Your task to perform on an android device: Search for "macbook air" on newegg.com, select the first entry, add it to the cart, then select checkout. Image 0: 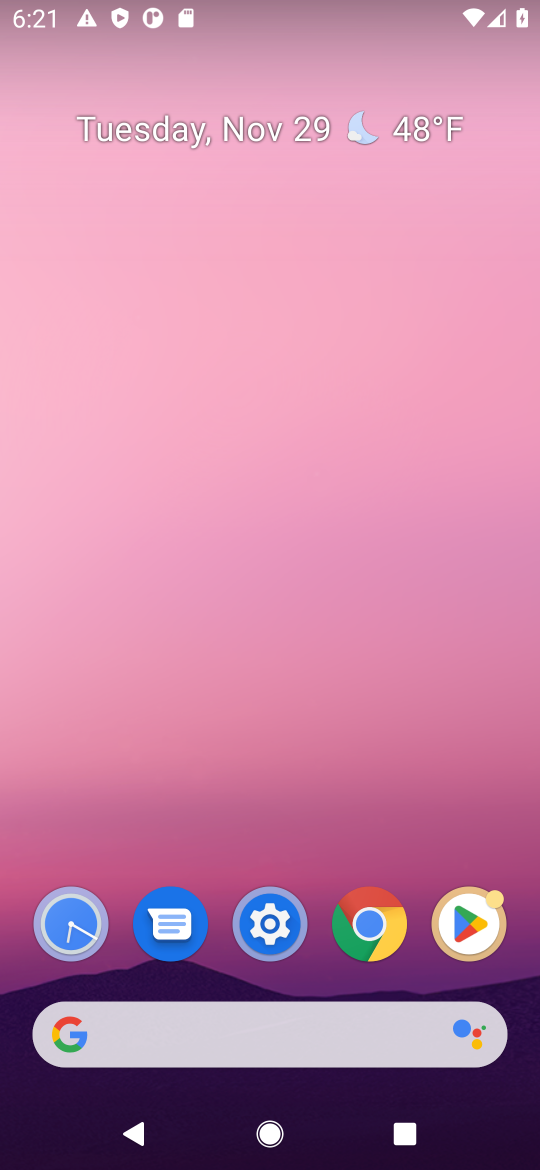
Step 0: click (200, 1050)
Your task to perform on an android device: Search for "macbook air" on newegg.com, select the first entry, add it to the cart, then select checkout. Image 1: 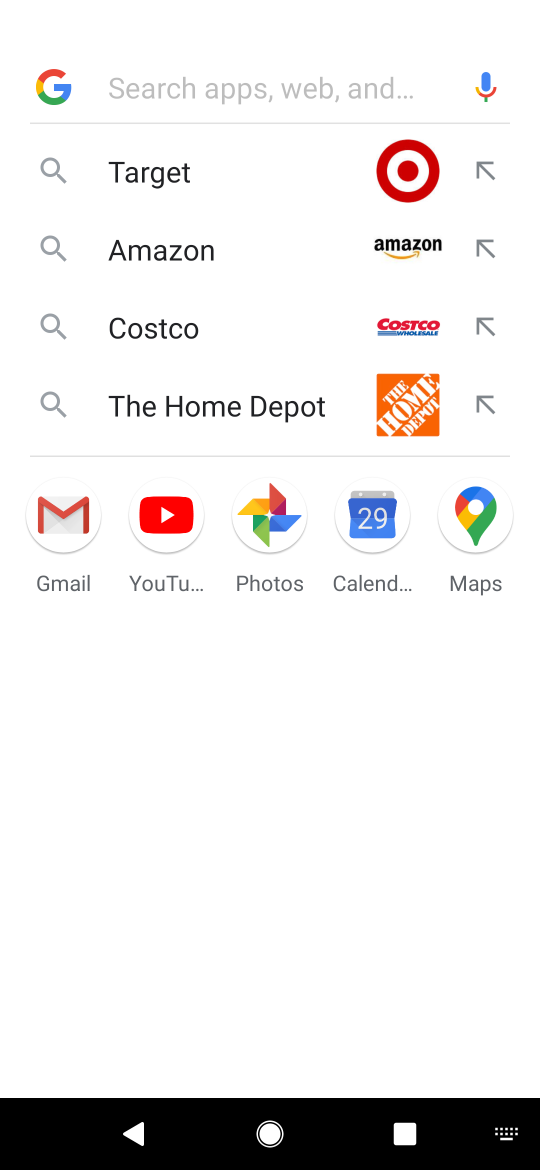
Step 1: type "newegg"
Your task to perform on an android device: Search for "macbook air" on newegg.com, select the first entry, add it to the cart, then select checkout. Image 2: 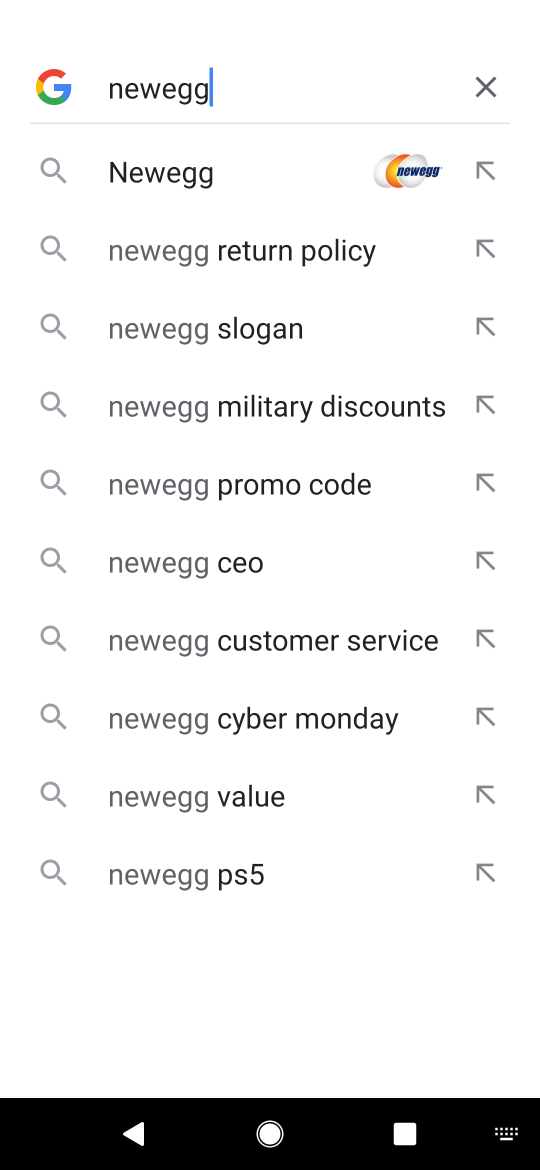
Step 2: click (124, 176)
Your task to perform on an android device: Search for "macbook air" on newegg.com, select the first entry, add it to the cart, then select checkout. Image 3: 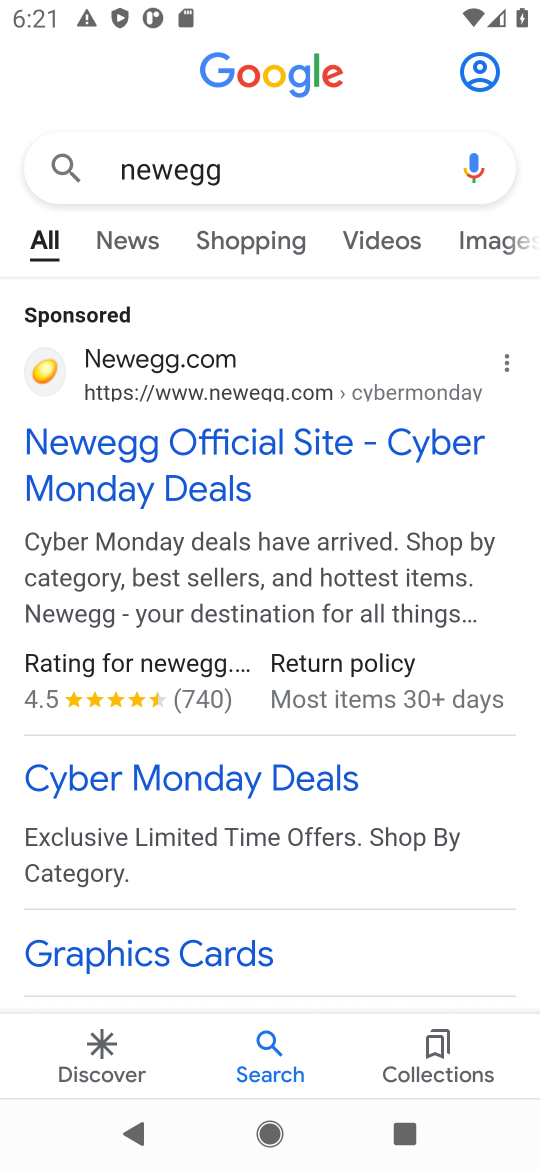
Step 3: click (207, 465)
Your task to perform on an android device: Search for "macbook air" on newegg.com, select the first entry, add it to the cart, then select checkout. Image 4: 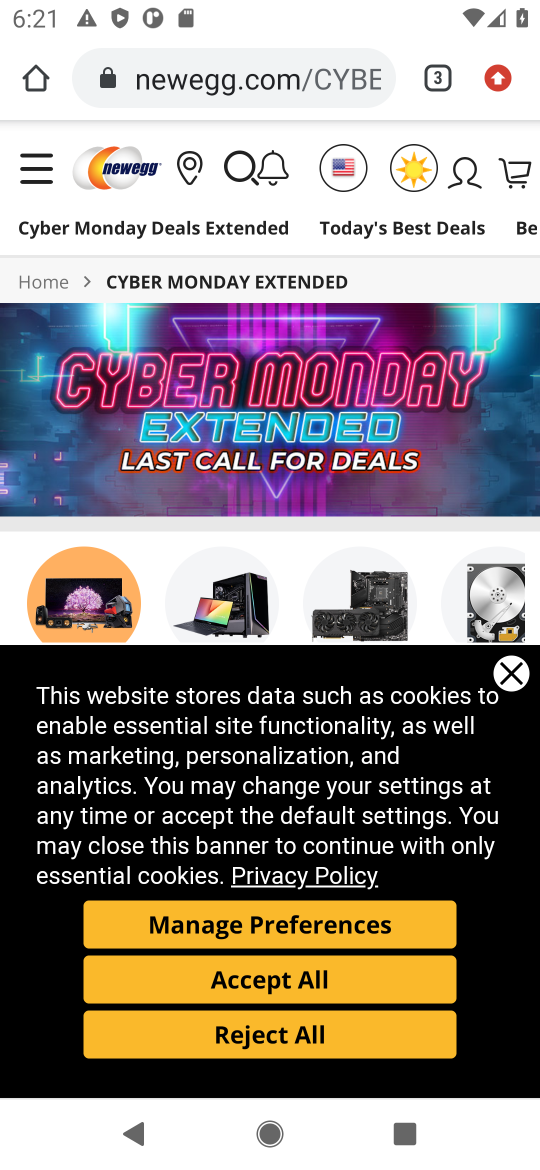
Step 4: click (513, 683)
Your task to perform on an android device: Search for "macbook air" on newegg.com, select the first entry, add it to the cart, then select checkout. Image 5: 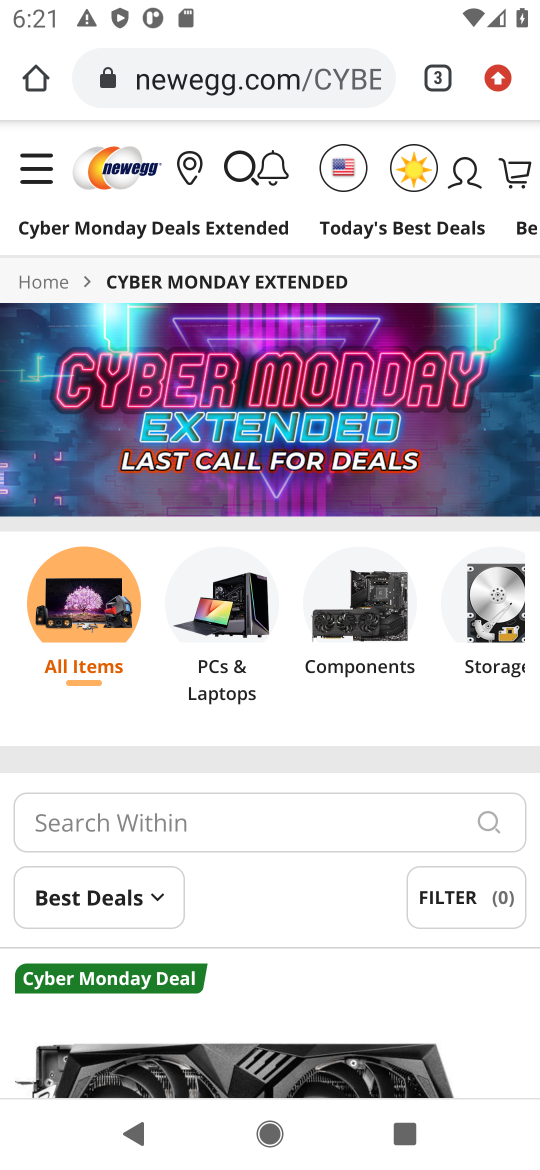
Step 5: click (225, 180)
Your task to perform on an android device: Search for "macbook air" on newegg.com, select the first entry, add it to the cart, then select checkout. Image 6: 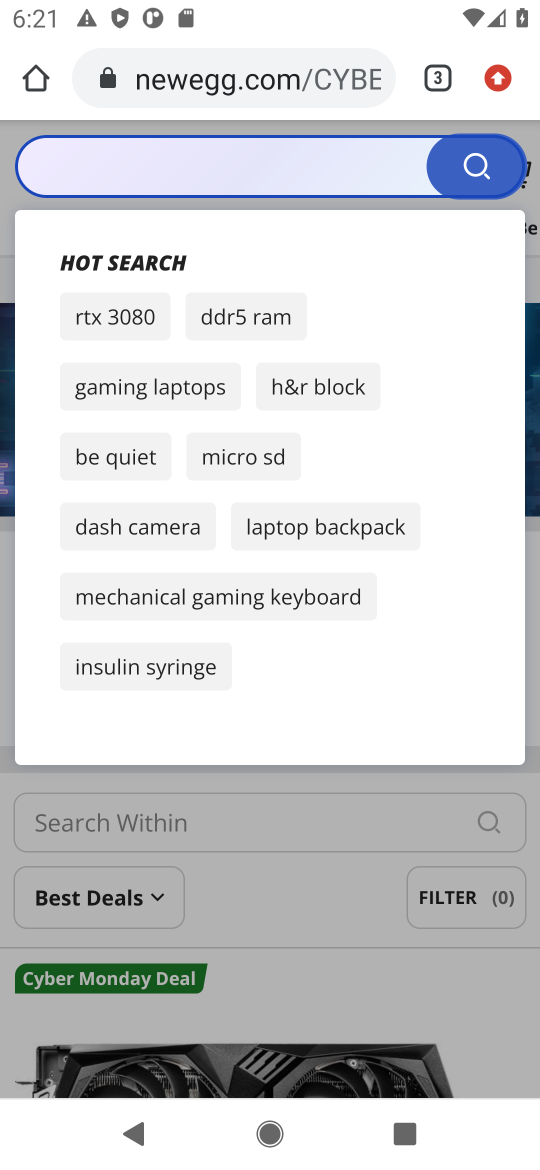
Step 6: click (186, 170)
Your task to perform on an android device: Search for "macbook air" on newegg.com, select the first entry, add it to the cart, then select checkout. Image 7: 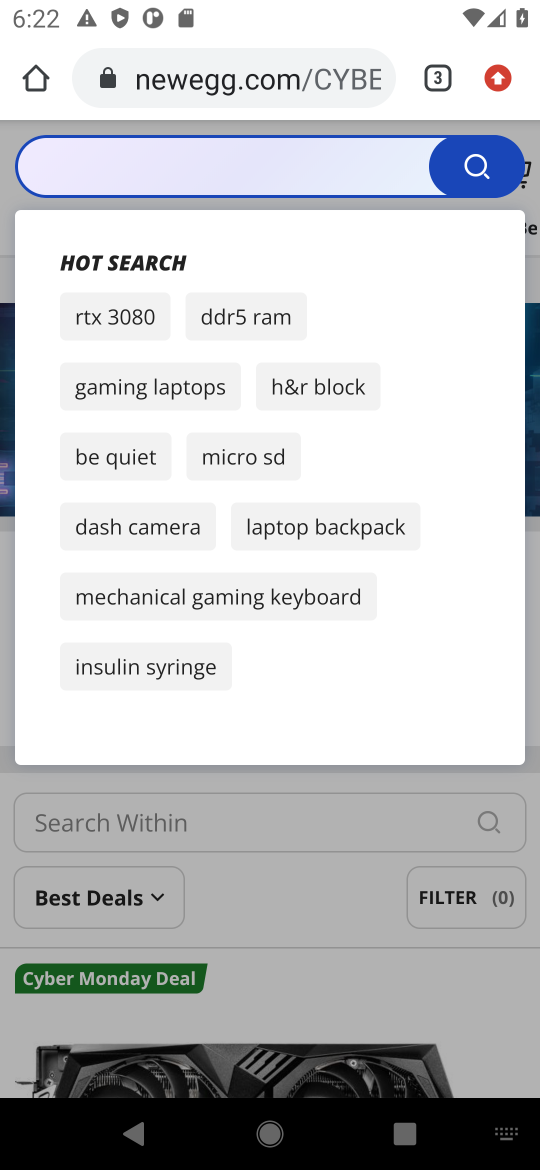
Step 7: type "macbook"
Your task to perform on an android device: Search for "macbook air" on newegg.com, select the first entry, add it to the cart, then select checkout. Image 8: 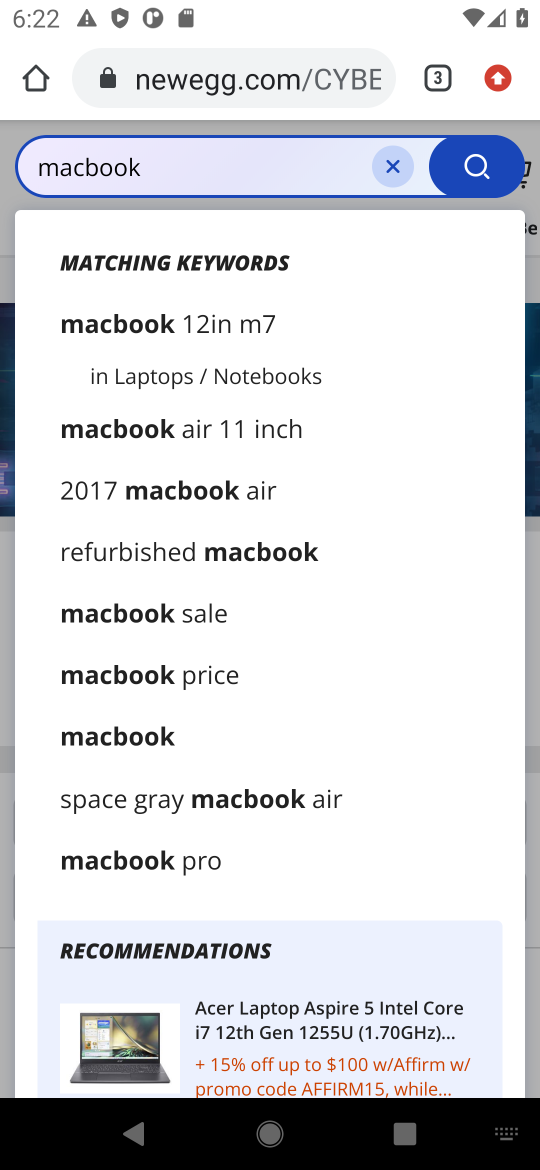
Step 8: click (245, 433)
Your task to perform on an android device: Search for "macbook air" on newegg.com, select the first entry, add it to the cart, then select checkout. Image 9: 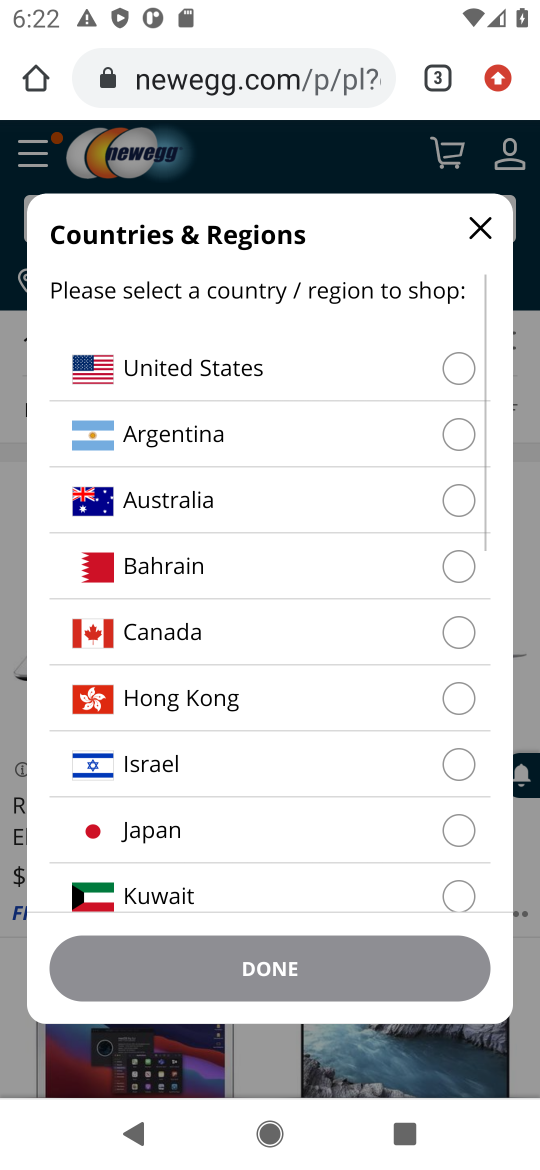
Step 9: click (363, 365)
Your task to perform on an android device: Search for "macbook air" on newegg.com, select the first entry, add it to the cart, then select checkout. Image 10: 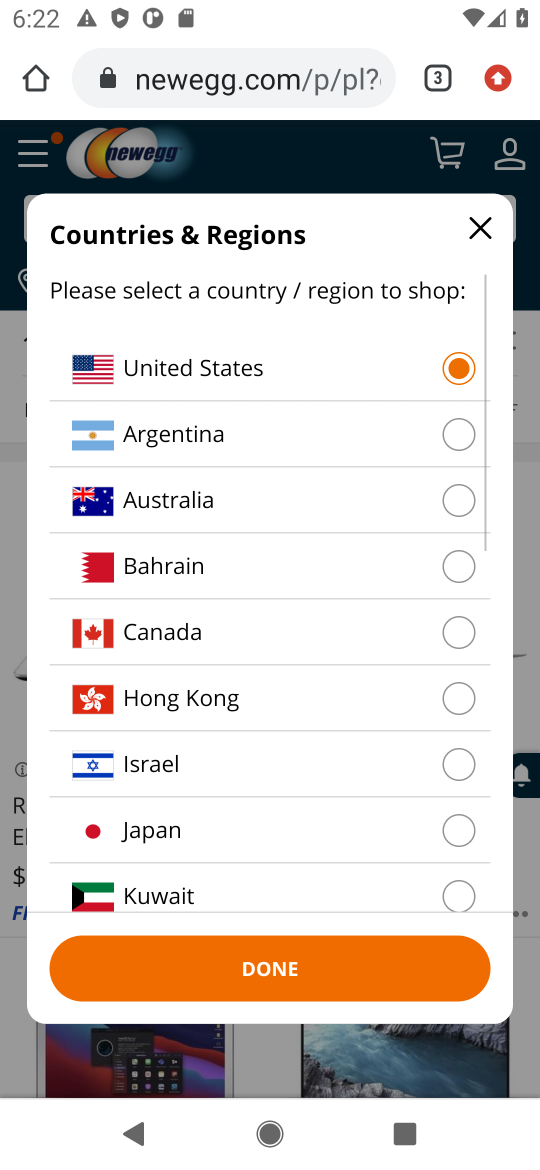
Step 10: click (308, 968)
Your task to perform on an android device: Search for "macbook air" on newegg.com, select the first entry, add it to the cart, then select checkout. Image 11: 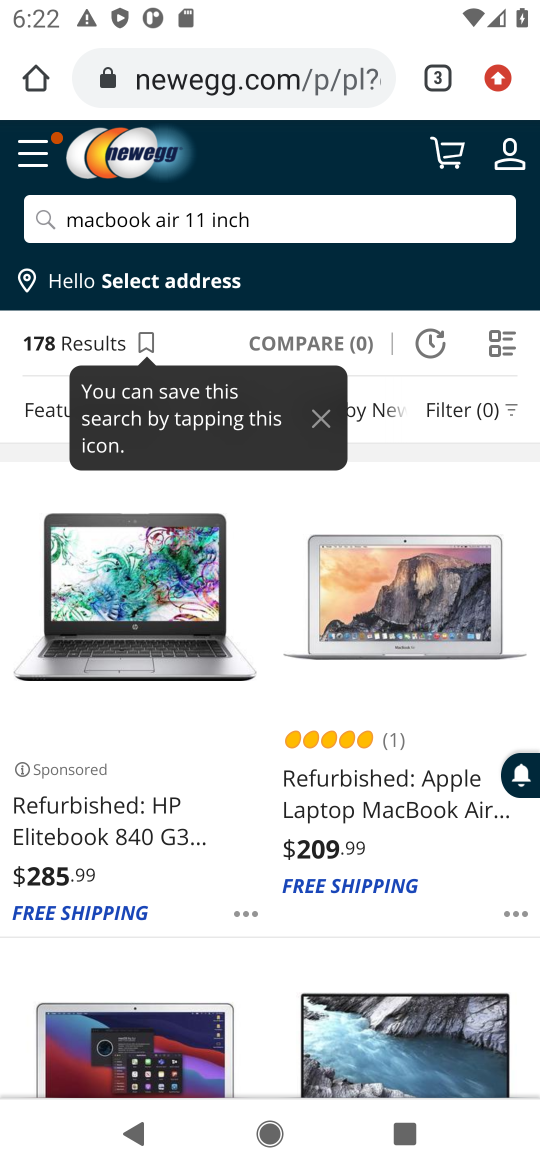
Step 11: task complete